Your task to perform on an android device: change the clock style Image 0: 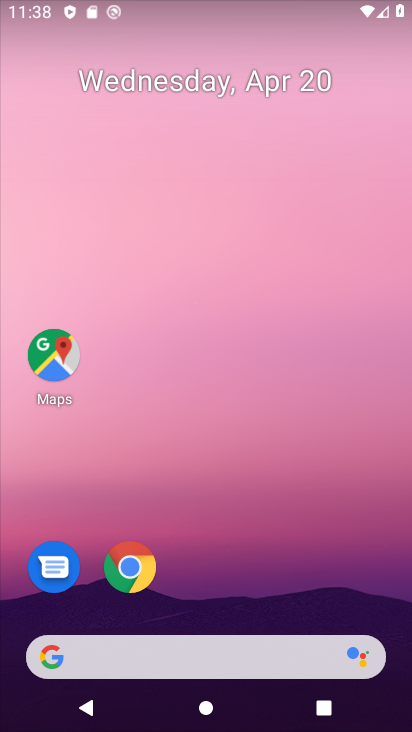
Step 0: drag from (230, 637) to (222, 226)
Your task to perform on an android device: change the clock style Image 1: 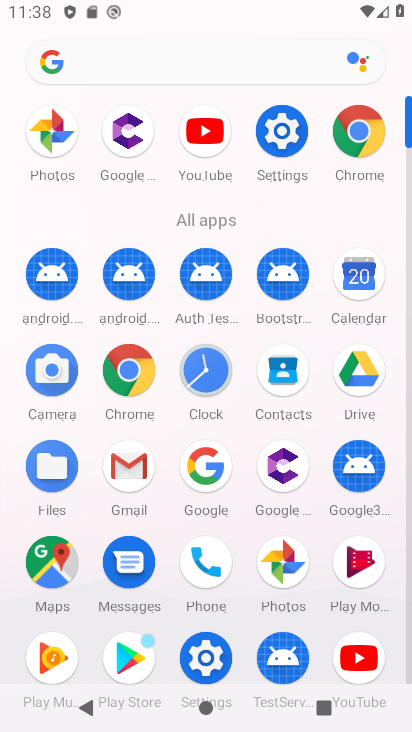
Step 1: click (210, 375)
Your task to perform on an android device: change the clock style Image 2: 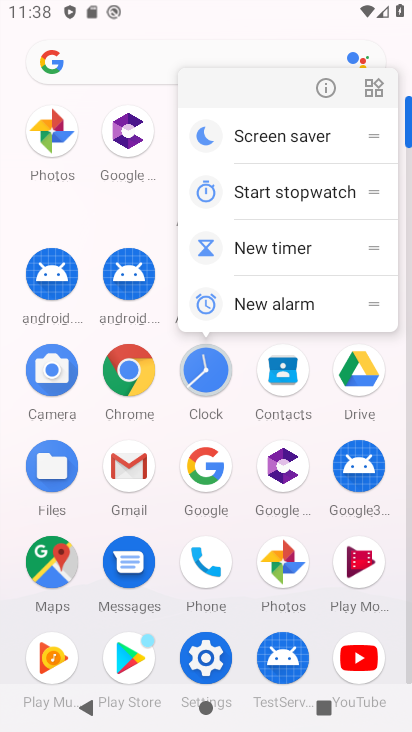
Step 2: click (210, 375)
Your task to perform on an android device: change the clock style Image 3: 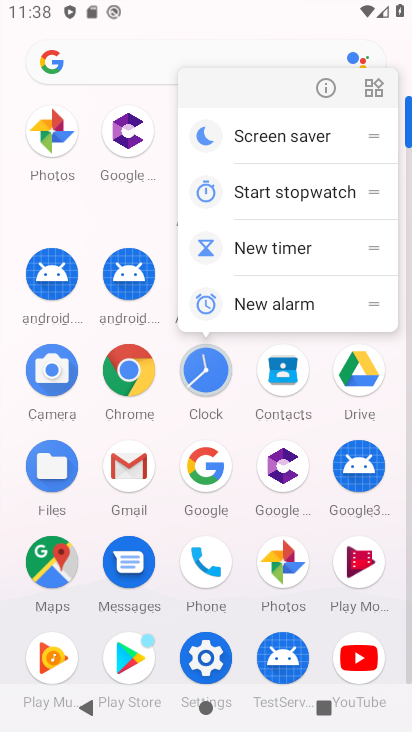
Step 3: click (210, 375)
Your task to perform on an android device: change the clock style Image 4: 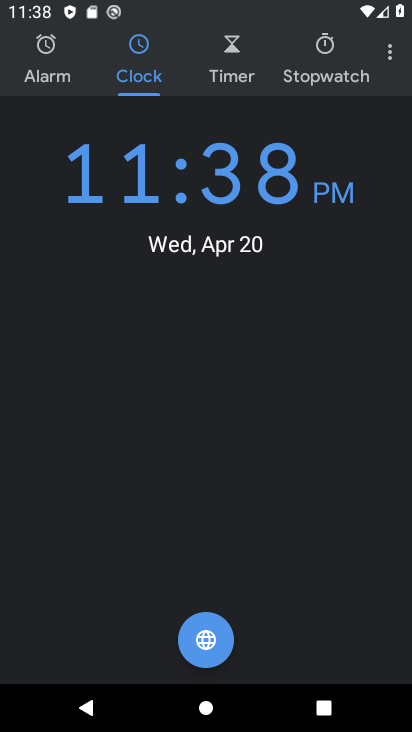
Step 4: click (387, 58)
Your task to perform on an android device: change the clock style Image 5: 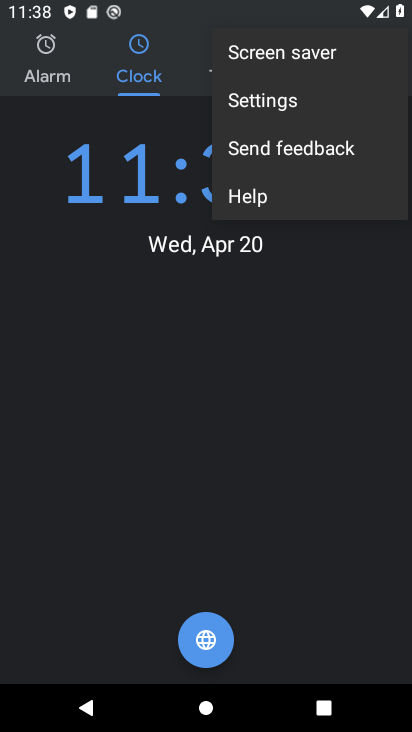
Step 5: click (247, 103)
Your task to perform on an android device: change the clock style Image 6: 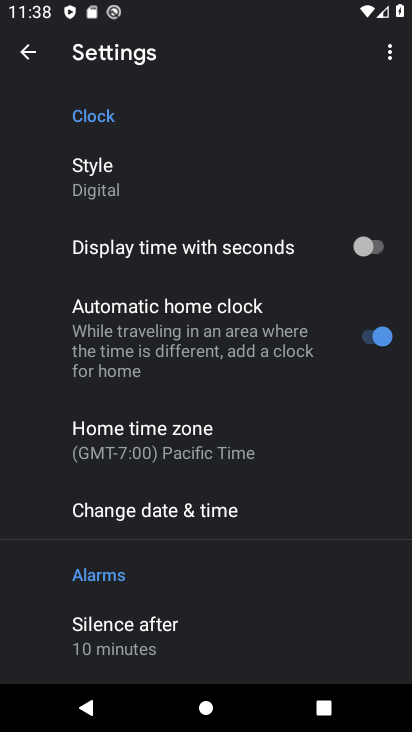
Step 6: click (84, 170)
Your task to perform on an android device: change the clock style Image 7: 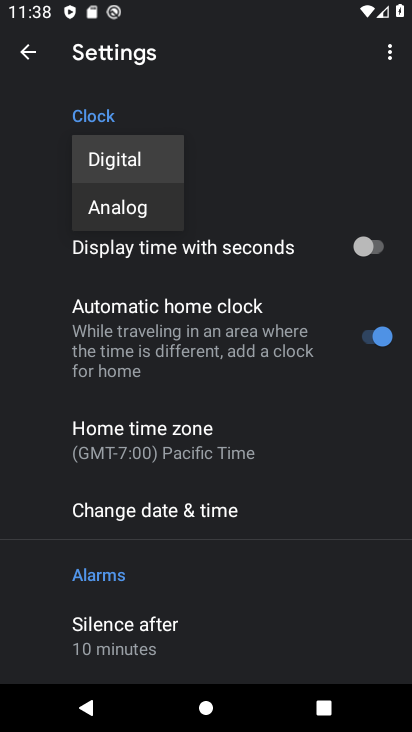
Step 7: click (155, 210)
Your task to perform on an android device: change the clock style Image 8: 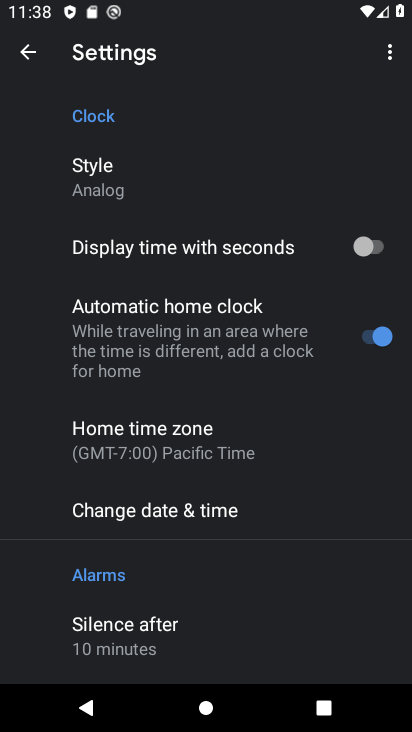
Step 8: task complete